Your task to perform on an android device: open chrome and create a bookmark for the current page Image 0: 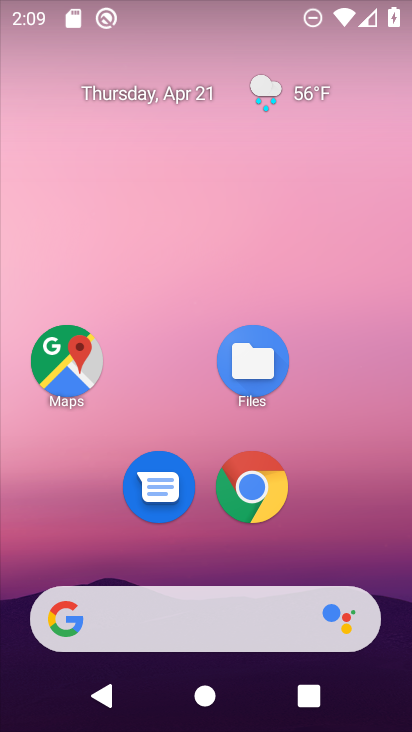
Step 0: drag from (356, 533) to (342, 172)
Your task to perform on an android device: open chrome and create a bookmark for the current page Image 1: 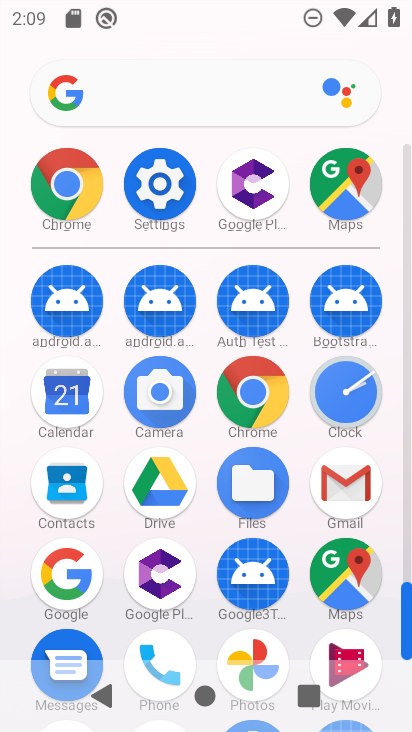
Step 1: click (233, 391)
Your task to perform on an android device: open chrome and create a bookmark for the current page Image 2: 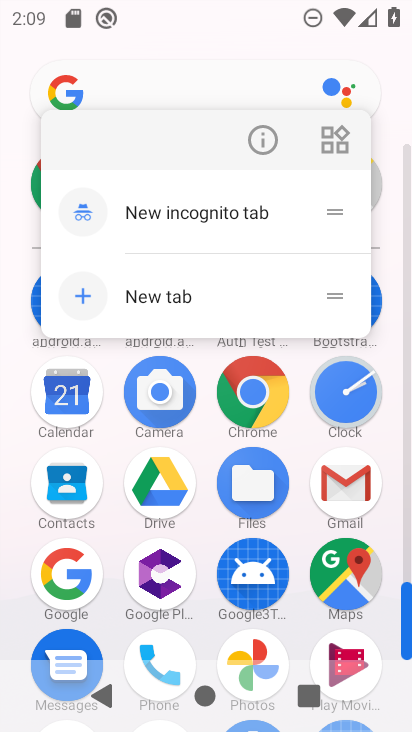
Step 2: click (236, 393)
Your task to perform on an android device: open chrome and create a bookmark for the current page Image 3: 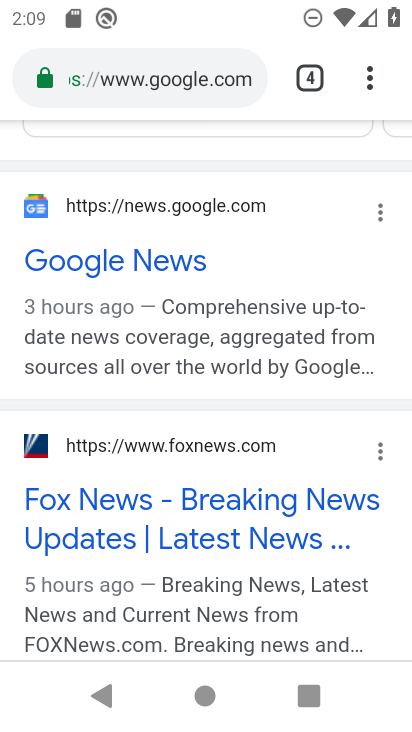
Step 3: click (314, 72)
Your task to perform on an android device: open chrome and create a bookmark for the current page Image 4: 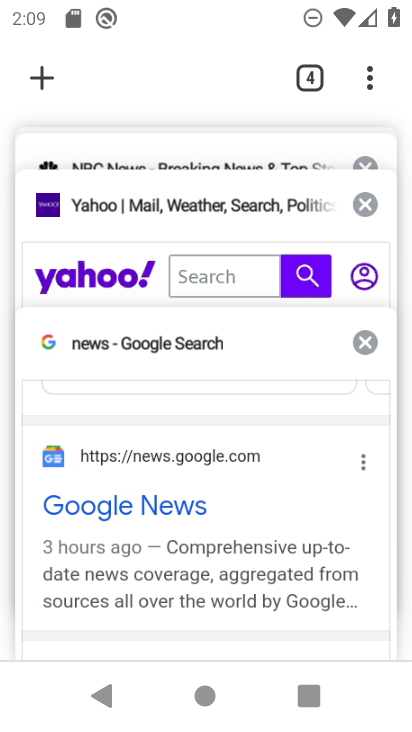
Step 4: click (32, 78)
Your task to perform on an android device: open chrome and create a bookmark for the current page Image 5: 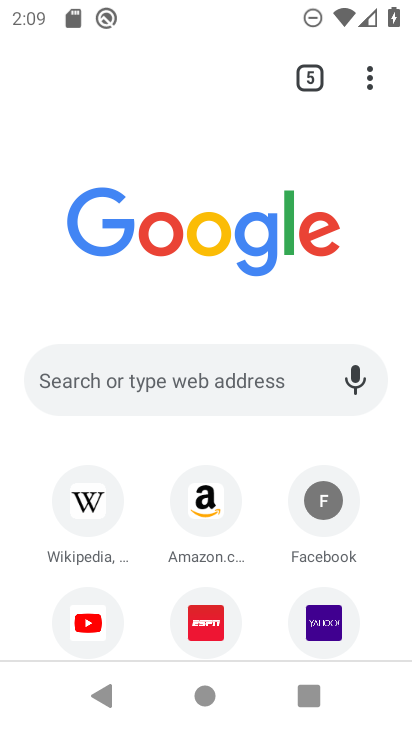
Step 5: click (176, 382)
Your task to perform on an android device: open chrome and create a bookmark for the current page Image 6: 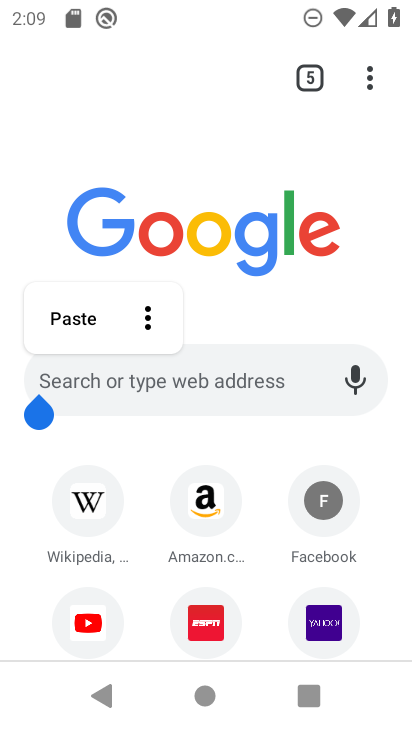
Step 6: click (212, 377)
Your task to perform on an android device: open chrome and create a bookmark for the current page Image 7: 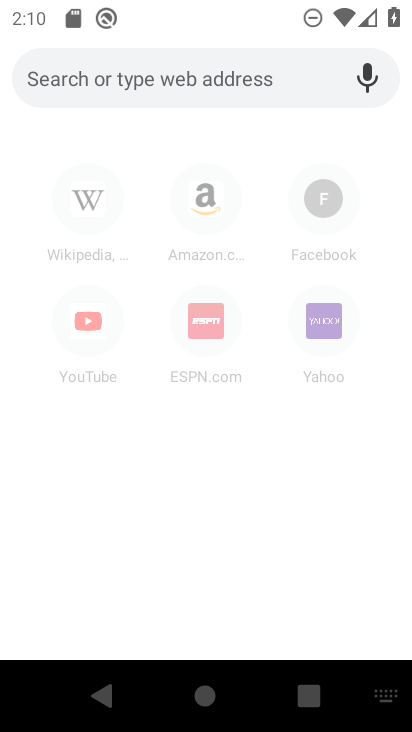
Step 7: type "flipkart"
Your task to perform on an android device: open chrome and create a bookmark for the current page Image 8: 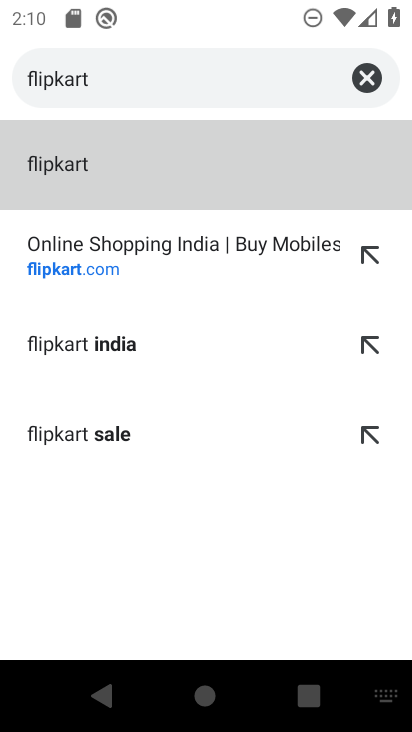
Step 8: click (63, 175)
Your task to perform on an android device: open chrome and create a bookmark for the current page Image 9: 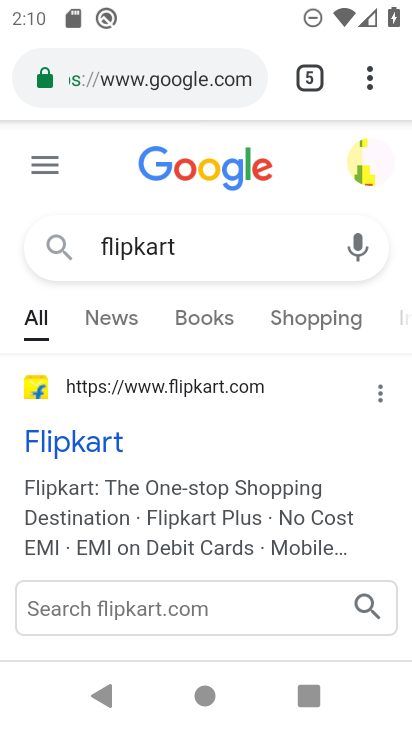
Step 9: click (83, 442)
Your task to perform on an android device: open chrome and create a bookmark for the current page Image 10: 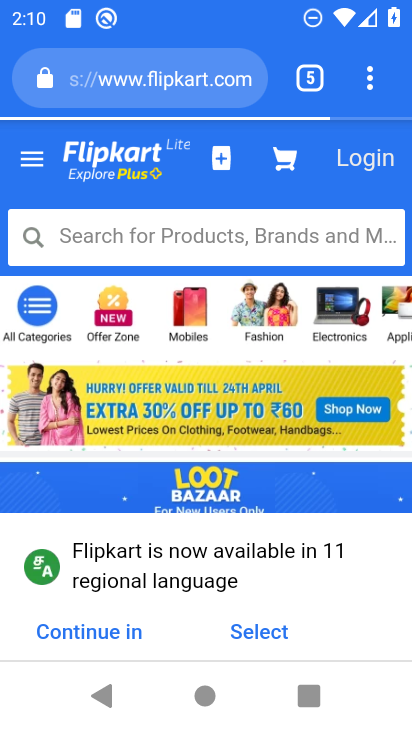
Step 10: click (373, 88)
Your task to perform on an android device: open chrome and create a bookmark for the current page Image 11: 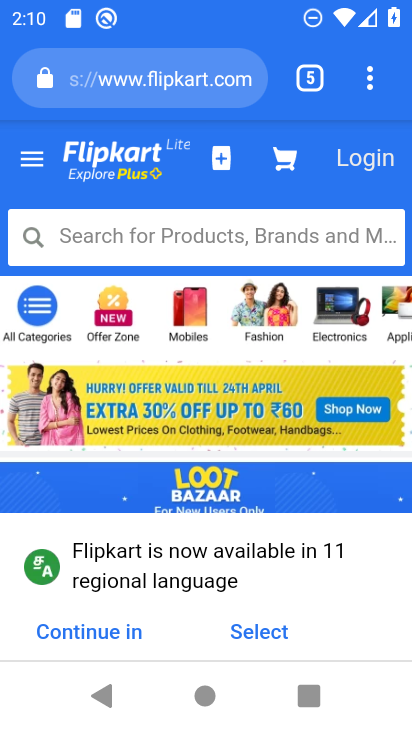
Step 11: task complete